Your task to perform on an android device: Open network settings Image 0: 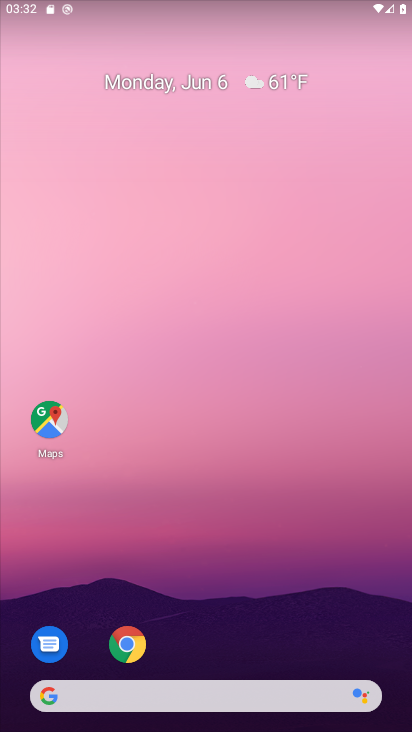
Step 0: drag from (229, 631) to (309, 14)
Your task to perform on an android device: Open network settings Image 1: 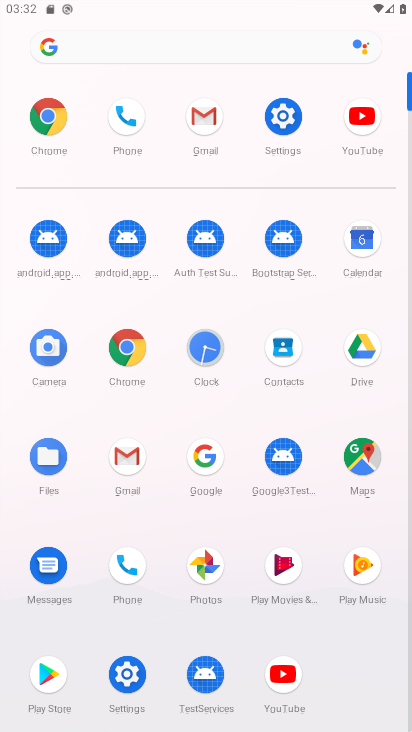
Step 1: click (284, 123)
Your task to perform on an android device: Open network settings Image 2: 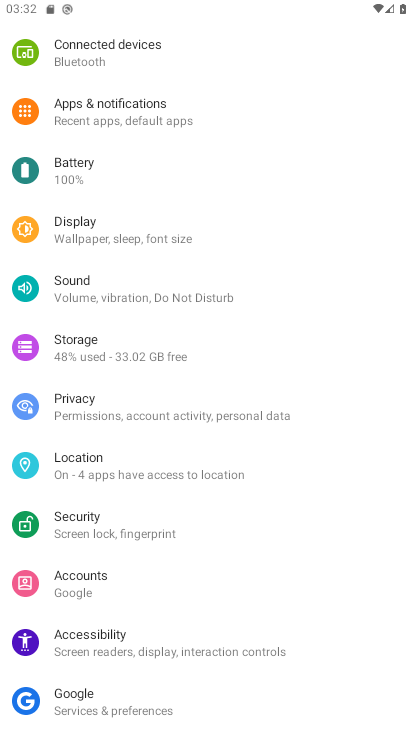
Step 2: drag from (184, 143) to (171, 390)
Your task to perform on an android device: Open network settings Image 3: 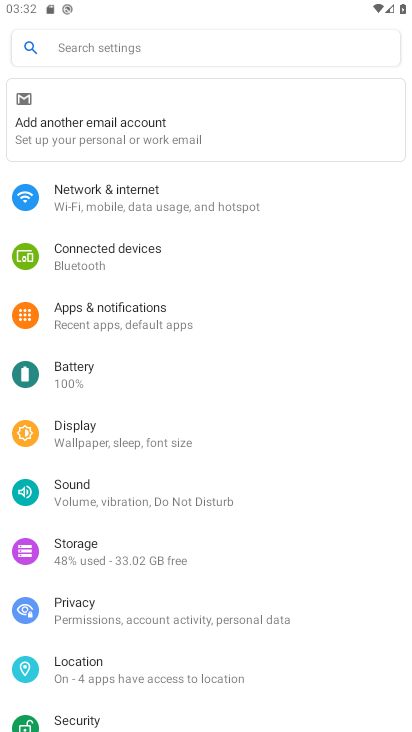
Step 3: click (153, 220)
Your task to perform on an android device: Open network settings Image 4: 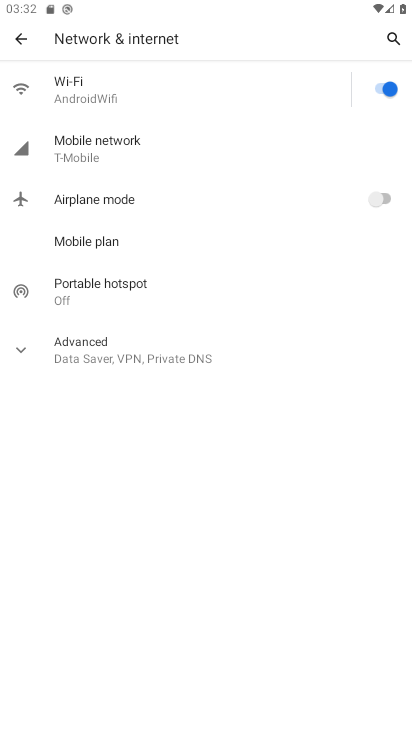
Step 4: click (111, 140)
Your task to perform on an android device: Open network settings Image 5: 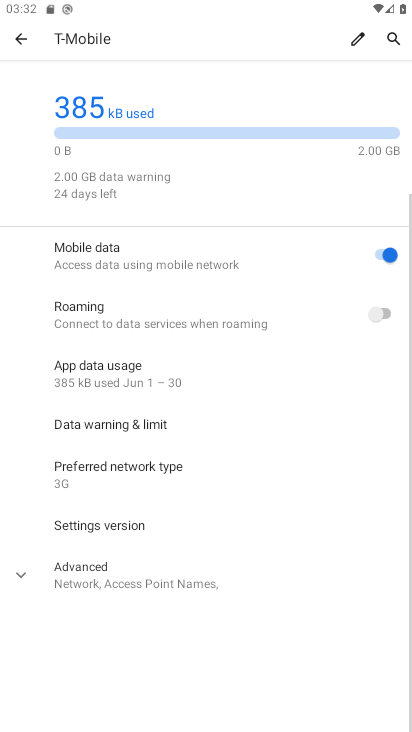
Step 5: task complete